Your task to perform on an android device: turn pop-ups off in chrome Image 0: 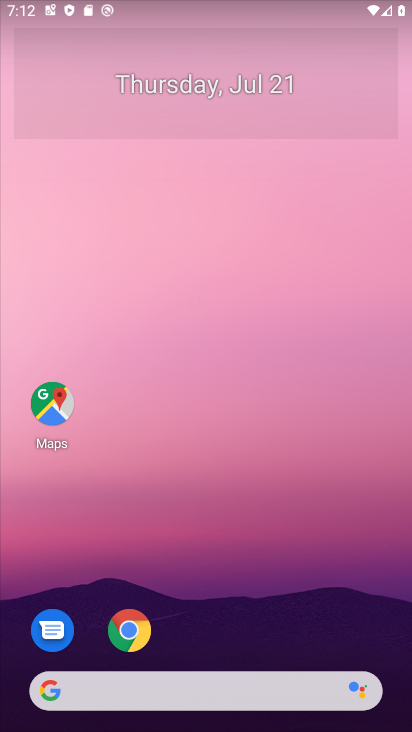
Step 0: click (129, 635)
Your task to perform on an android device: turn pop-ups off in chrome Image 1: 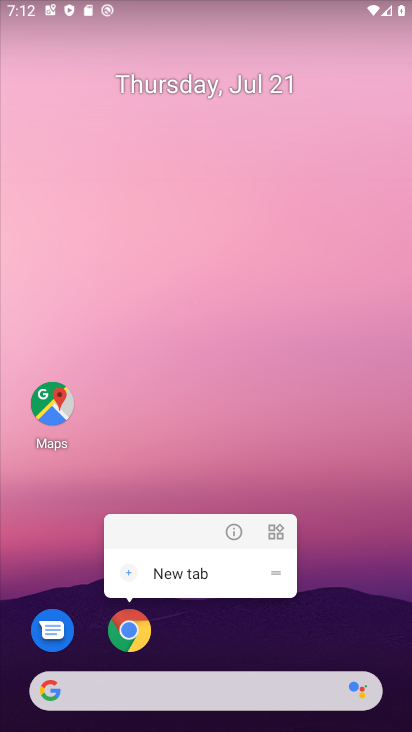
Step 1: click (129, 635)
Your task to perform on an android device: turn pop-ups off in chrome Image 2: 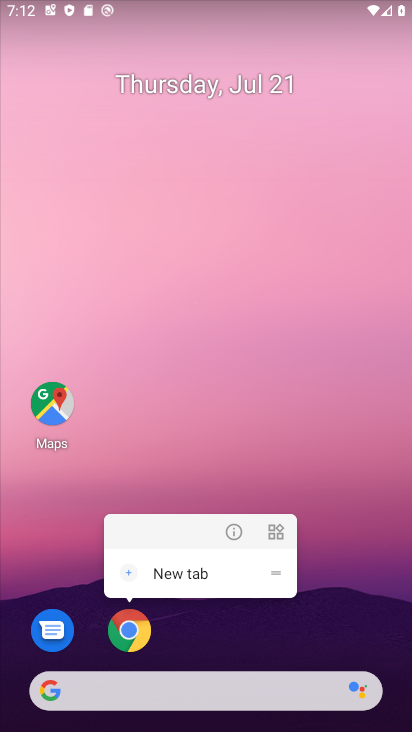
Step 2: click (129, 635)
Your task to perform on an android device: turn pop-ups off in chrome Image 3: 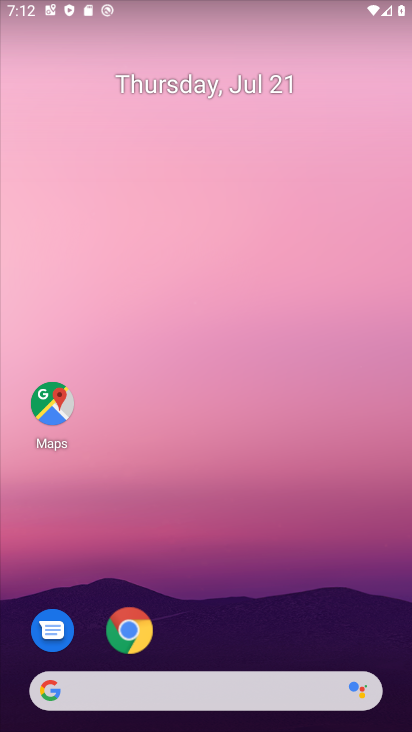
Step 3: click (129, 635)
Your task to perform on an android device: turn pop-ups off in chrome Image 4: 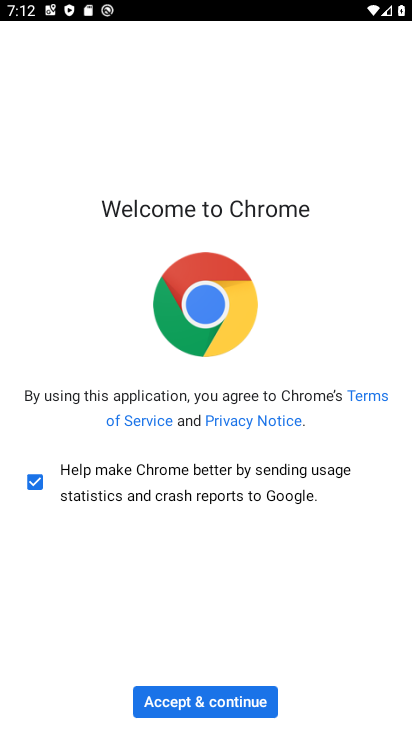
Step 4: click (184, 717)
Your task to perform on an android device: turn pop-ups off in chrome Image 5: 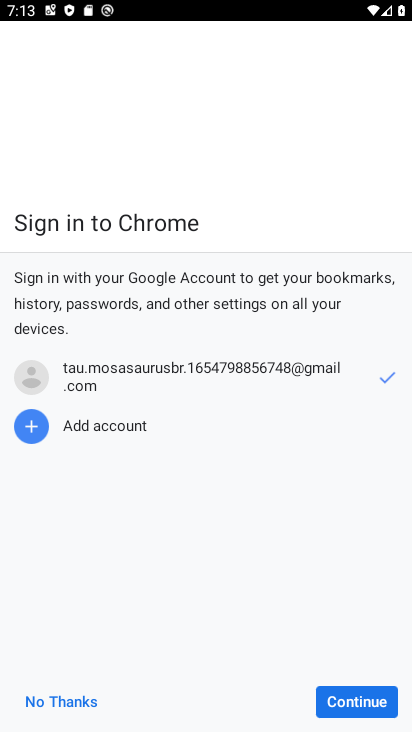
Step 5: click (384, 703)
Your task to perform on an android device: turn pop-ups off in chrome Image 6: 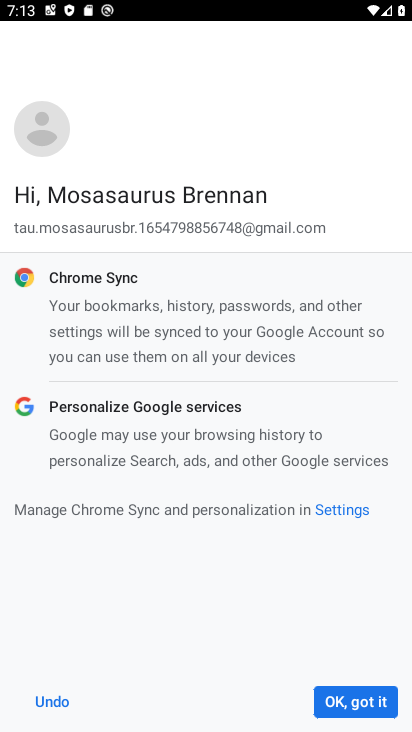
Step 6: click (384, 703)
Your task to perform on an android device: turn pop-ups off in chrome Image 7: 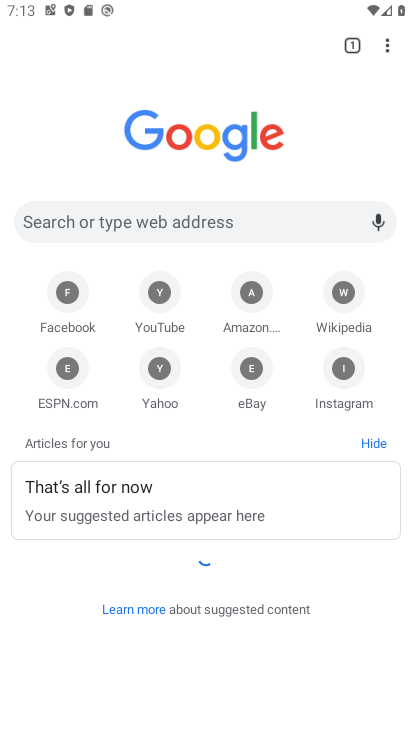
Step 7: click (383, 44)
Your task to perform on an android device: turn pop-ups off in chrome Image 8: 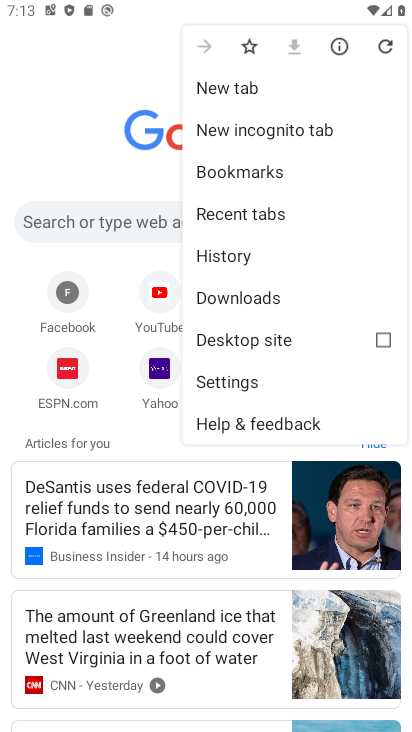
Step 8: click (241, 378)
Your task to perform on an android device: turn pop-ups off in chrome Image 9: 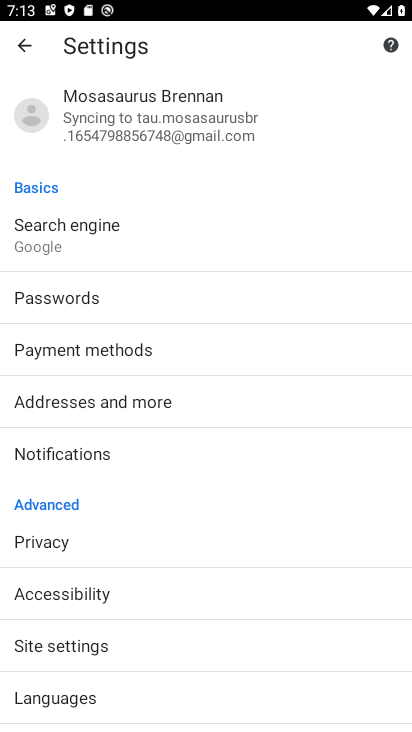
Step 9: click (71, 655)
Your task to perform on an android device: turn pop-ups off in chrome Image 10: 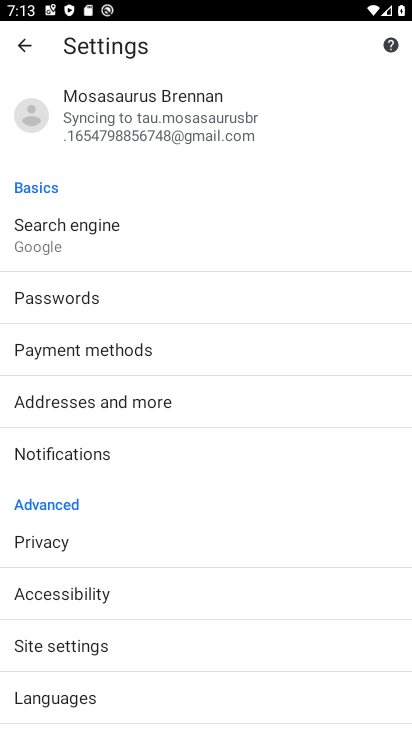
Step 10: click (71, 655)
Your task to perform on an android device: turn pop-ups off in chrome Image 11: 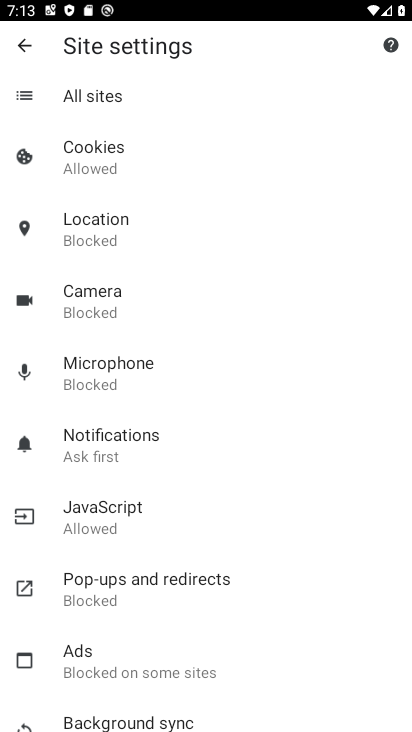
Step 11: click (97, 597)
Your task to perform on an android device: turn pop-ups off in chrome Image 12: 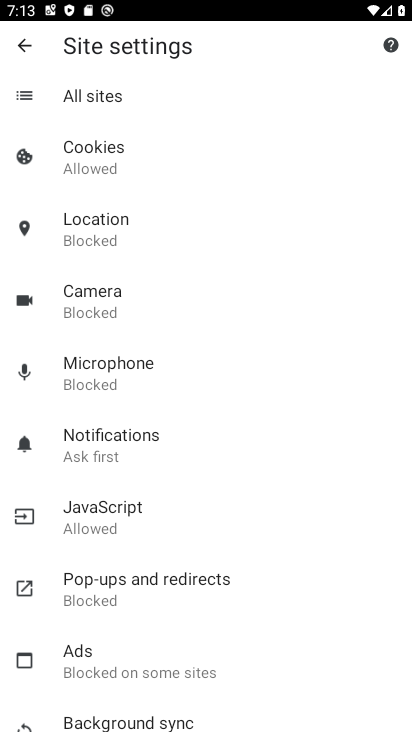
Step 12: click (97, 597)
Your task to perform on an android device: turn pop-ups off in chrome Image 13: 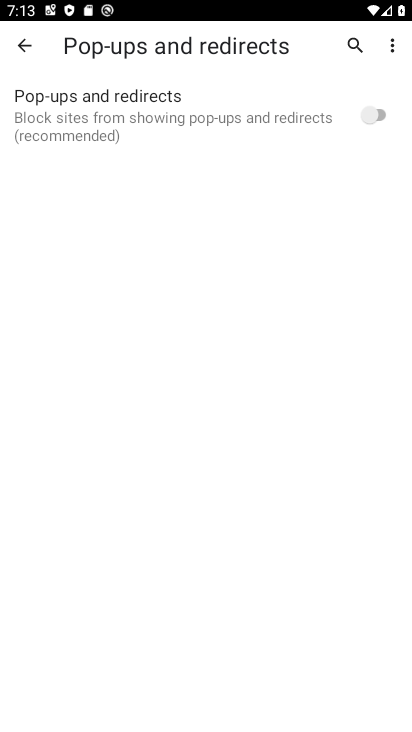
Step 13: task complete